Your task to perform on an android device: What's on my calendar tomorrow? Image 0: 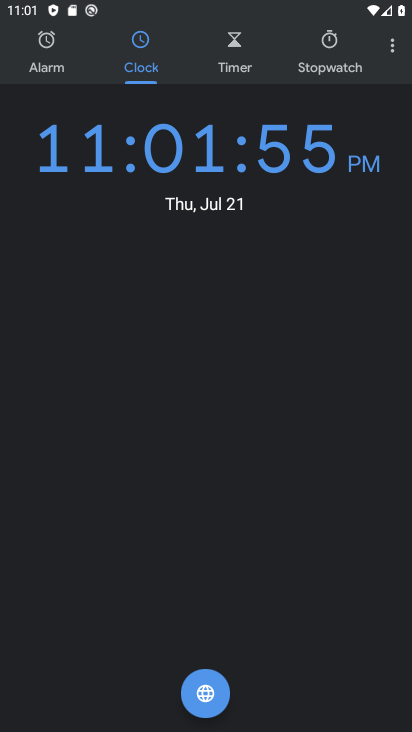
Step 0: press home button
Your task to perform on an android device: What's on my calendar tomorrow? Image 1: 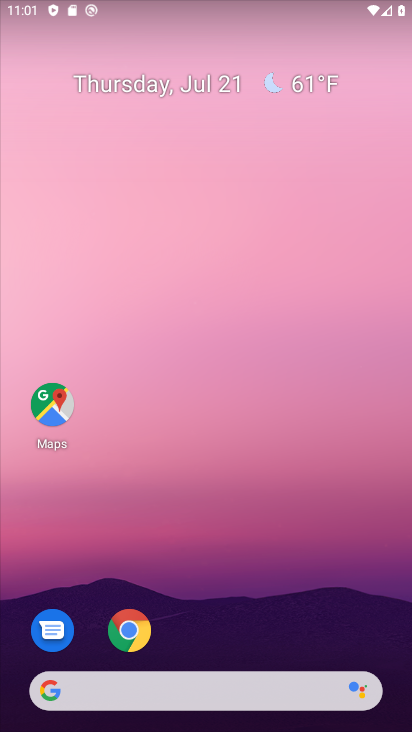
Step 1: drag from (225, 653) to (239, 132)
Your task to perform on an android device: What's on my calendar tomorrow? Image 2: 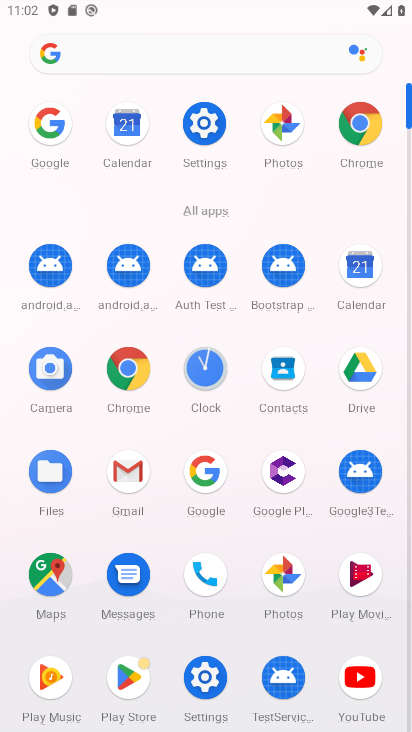
Step 2: click (363, 280)
Your task to perform on an android device: What's on my calendar tomorrow? Image 3: 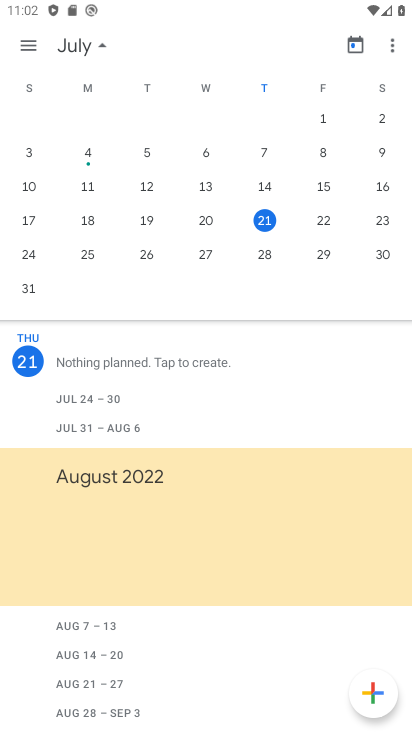
Step 3: click (330, 224)
Your task to perform on an android device: What's on my calendar tomorrow? Image 4: 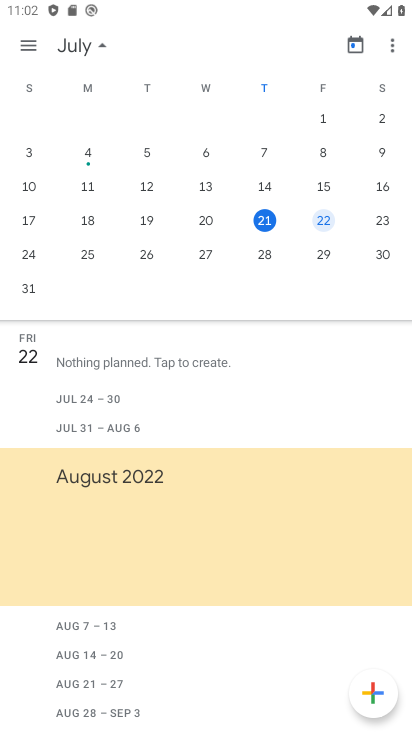
Step 4: task complete